Your task to perform on an android device: toggle improve location accuracy Image 0: 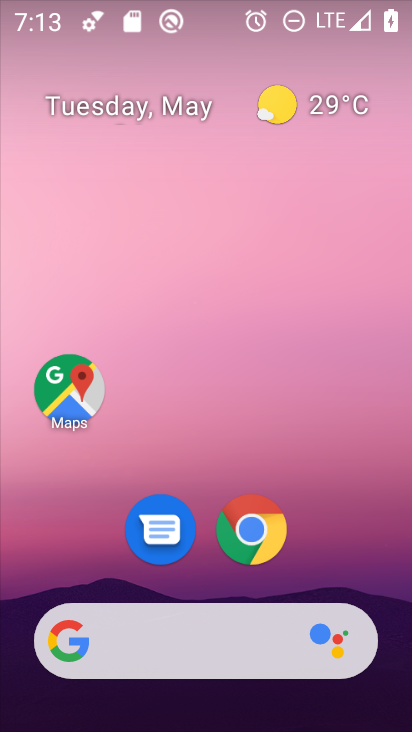
Step 0: drag from (388, 631) to (246, 63)
Your task to perform on an android device: toggle improve location accuracy Image 1: 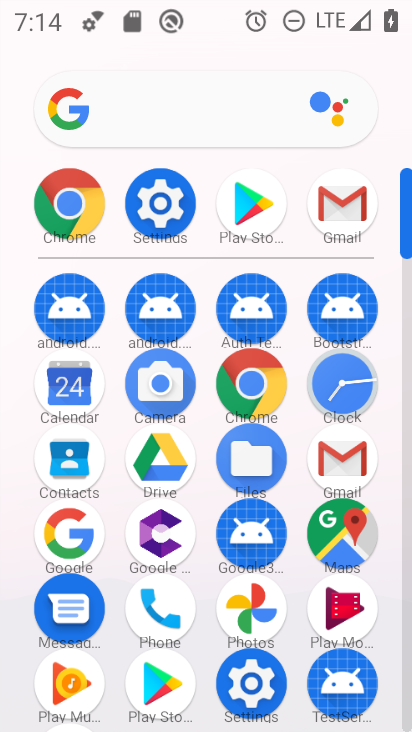
Step 1: click (175, 207)
Your task to perform on an android device: toggle improve location accuracy Image 2: 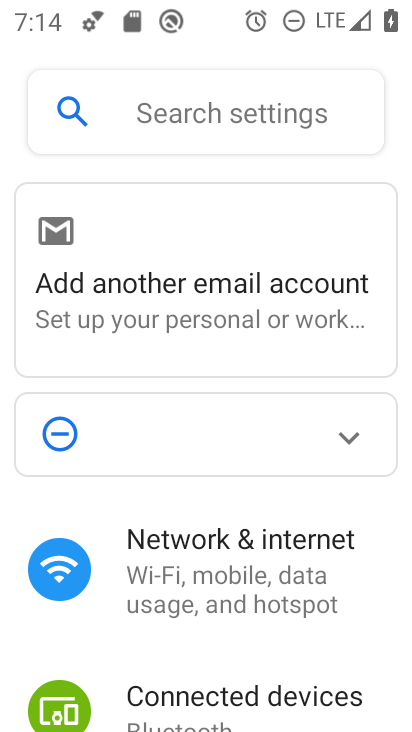
Step 2: drag from (170, 661) to (162, 32)
Your task to perform on an android device: toggle improve location accuracy Image 3: 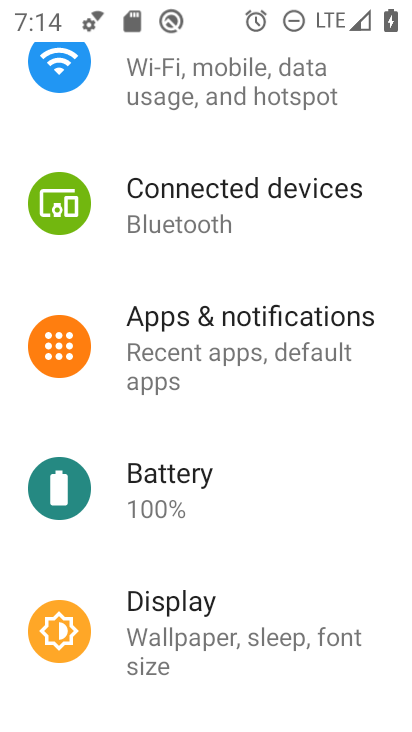
Step 3: drag from (201, 614) to (195, 112)
Your task to perform on an android device: toggle improve location accuracy Image 4: 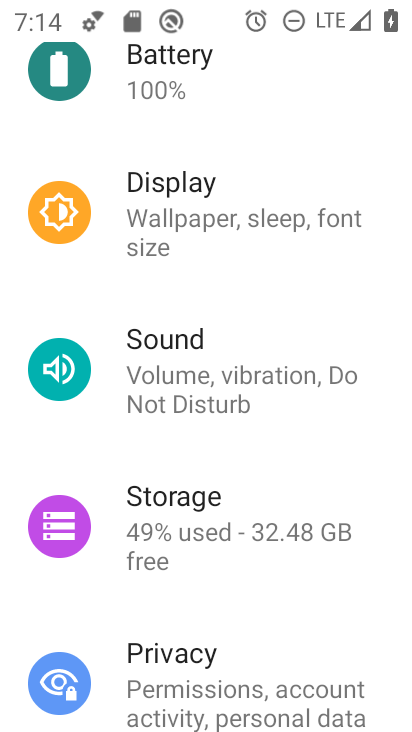
Step 4: drag from (191, 669) to (214, 143)
Your task to perform on an android device: toggle improve location accuracy Image 5: 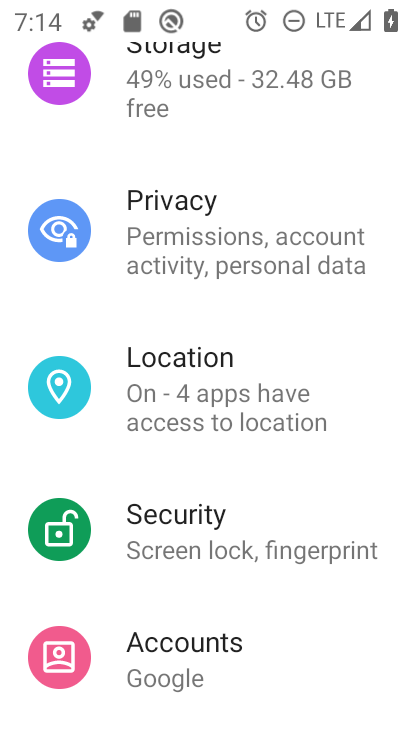
Step 5: click (202, 416)
Your task to perform on an android device: toggle improve location accuracy Image 6: 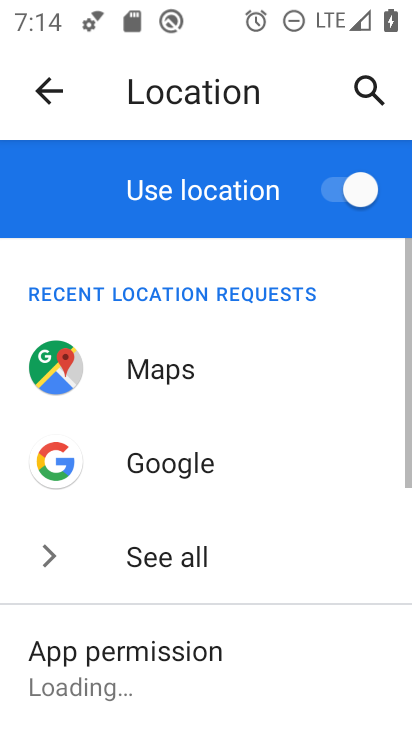
Step 6: drag from (203, 632) to (155, 64)
Your task to perform on an android device: toggle improve location accuracy Image 7: 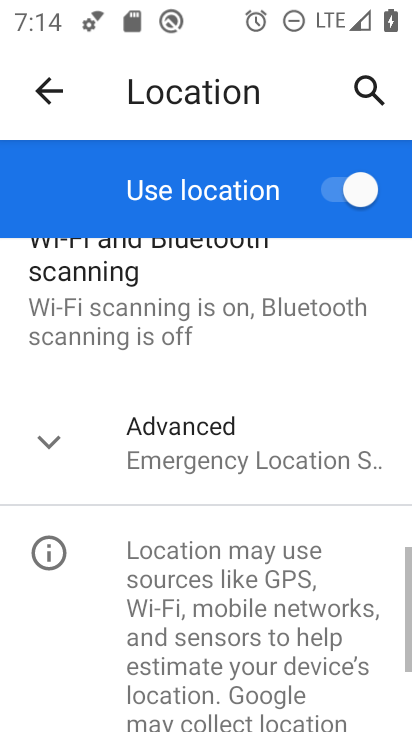
Step 7: click (146, 456)
Your task to perform on an android device: toggle improve location accuracy Image 8: 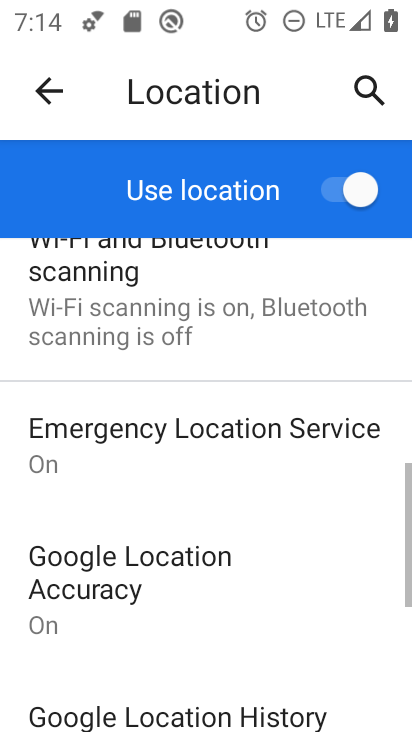
Step 8: drag from (175, 664) to (197, 368)
Your task to perform on an android device: toggle improve location accuracy Image 9: 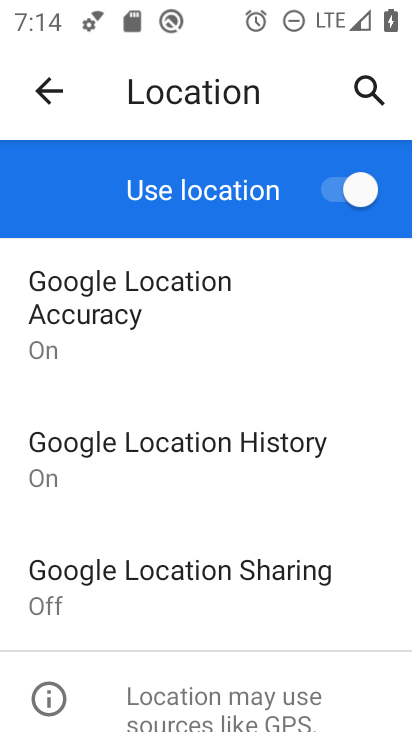
Step 9: click (116, 307)
Your task to perform on an android device: toggle improve location accuracy Image 10: 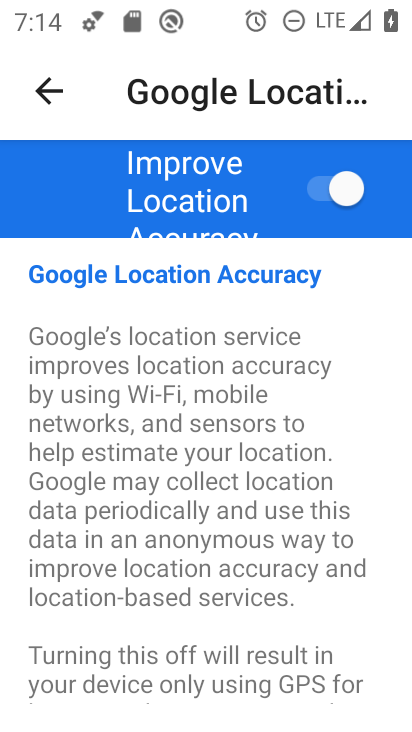
Step 10: click (336, 201)
Your task to perform on an android device: toggle improve location accuracy Image 11: 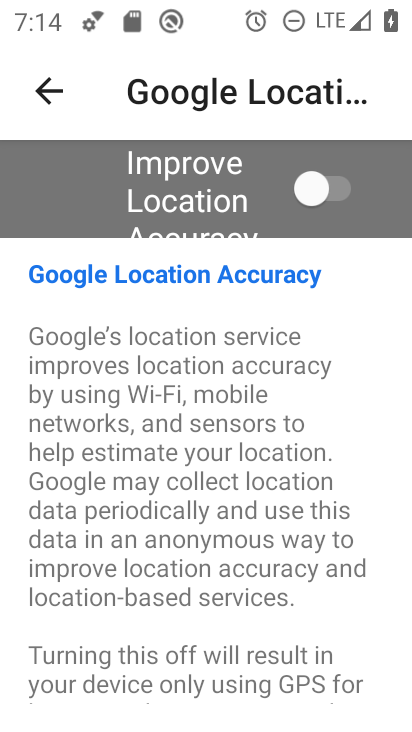
Step 11: task complete